Your task to perform on an android device: turn on location history Image 0: 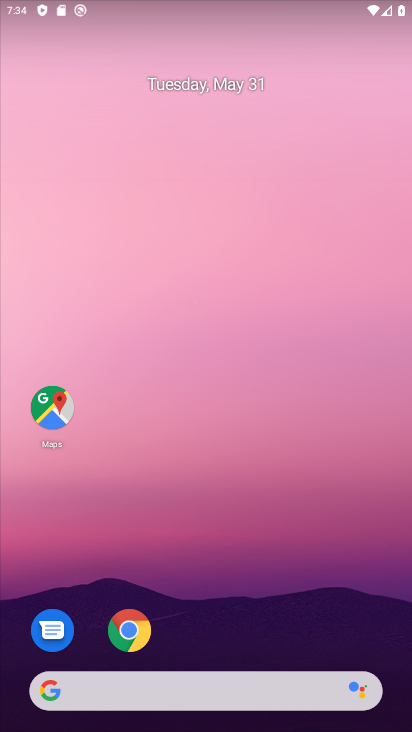
Step 0: press home button
Your task to perform on an android device: turn on location history Image 1: 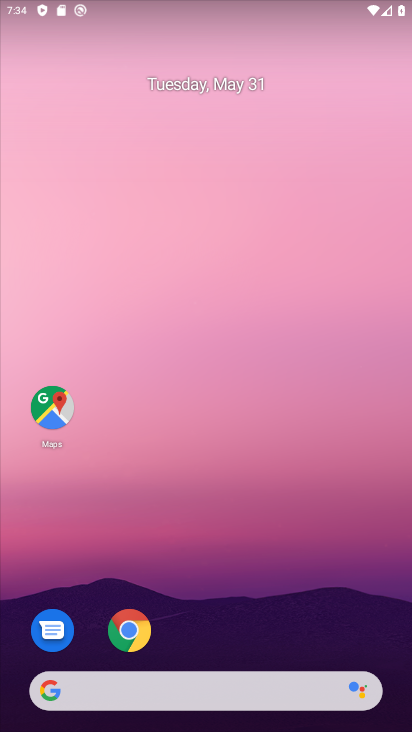
Step 1: drag from (234, 641) to (169, 306)
Your task to perform on an android device: turn on location history Image 2: 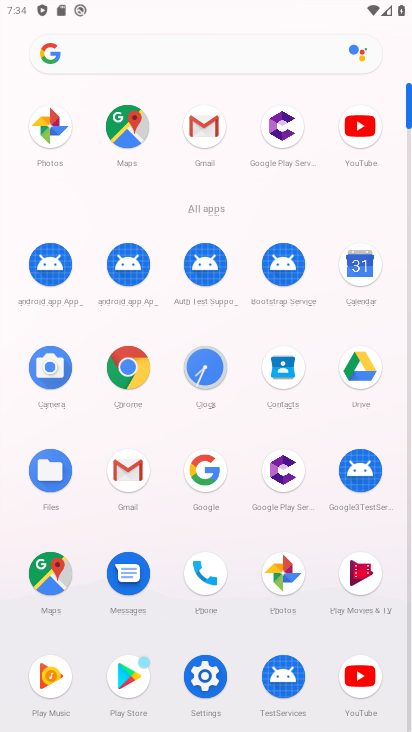
Step 2: click (201, 678)
Your task to perform on an android device: turn on location history Image 3: 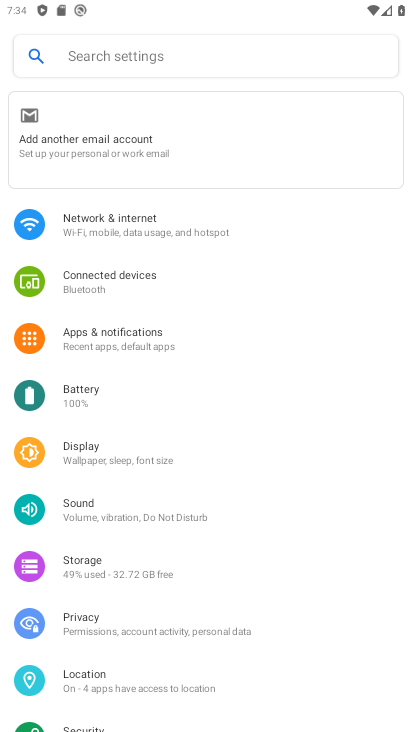
Step 3: click (93, 686)
Your task to perform on an android device: turn on location history Image 4: 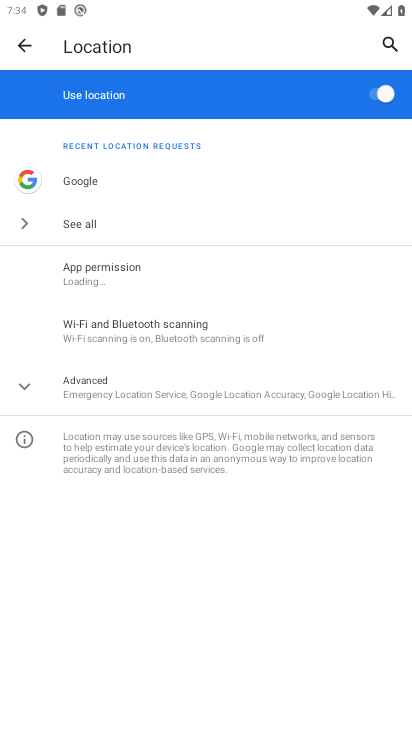
Step 4: click (32, 387)
Your task to perform on an android device: turn on location history Image 5: 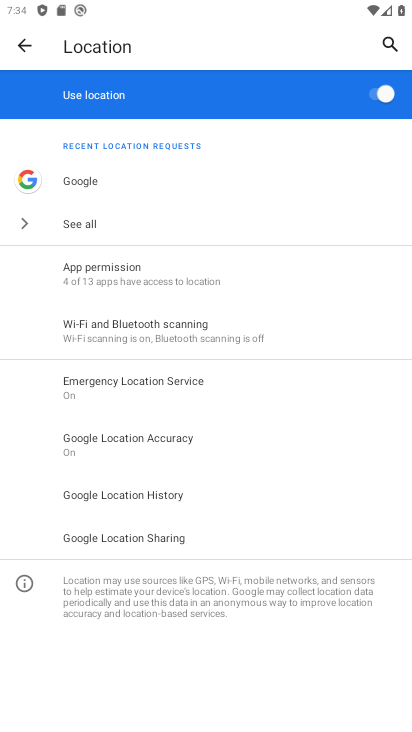
Step 5: click (107, 491)
Your task to perform on an android device: turn on location history Image 6: 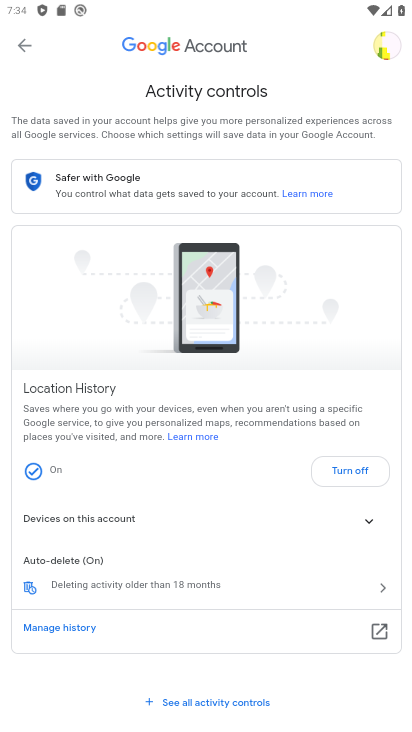
Step 6: click (36, 469)
Your task to perform on an android device: turn on location history Image 7: 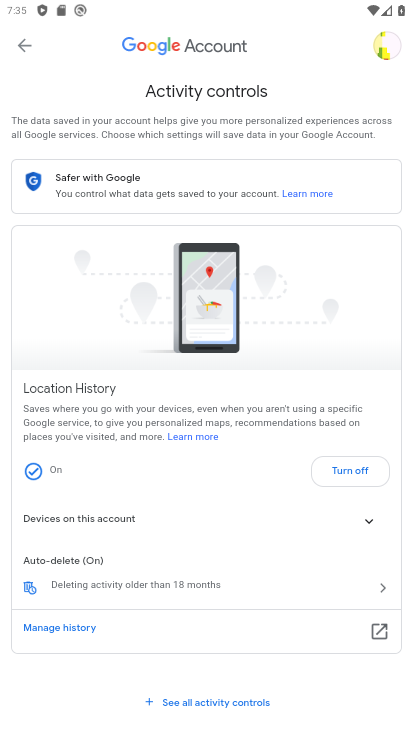
Step 7: click (31, 472)
Your task to perform on an android device: turn on location history Image 8: 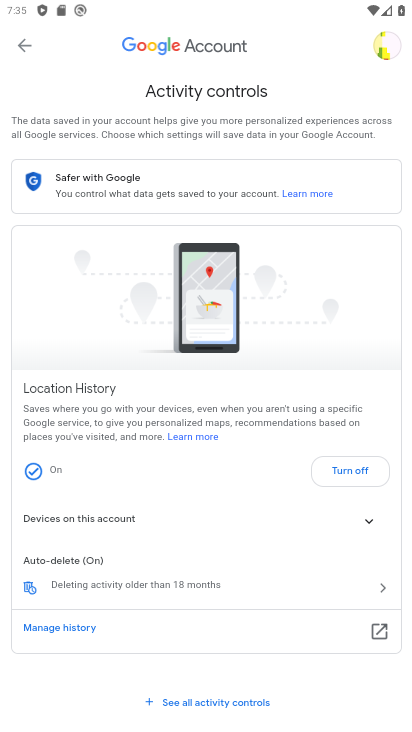
Step 8: task complete